Your task to perform on an android device: Open Chrome and go to the settings page Image 0: 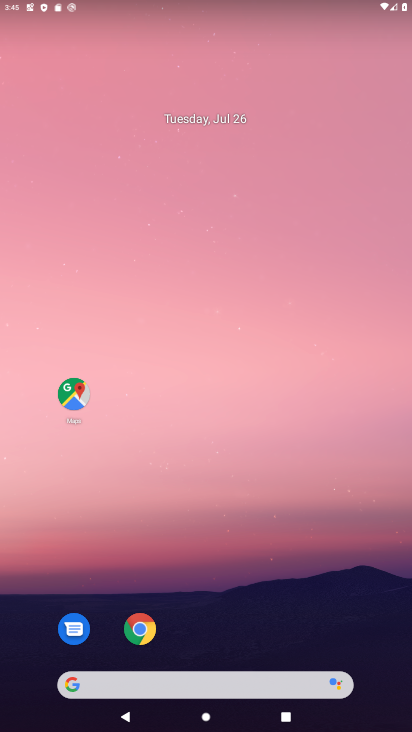
Step 0: click (143, 633)
Your task to perform on an android device: Open Chrome and go to the settings page Image 1: 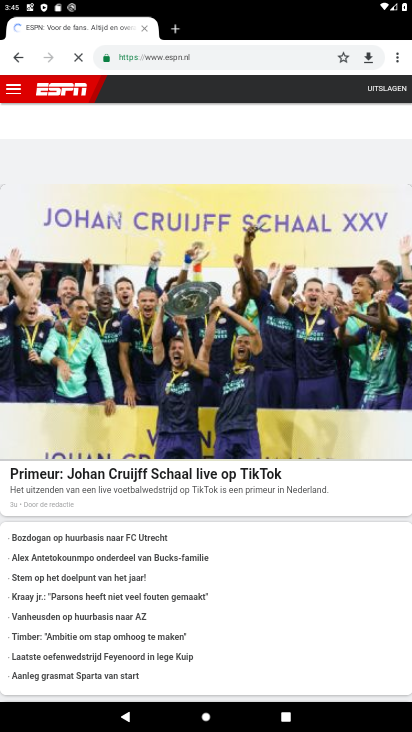
Step 1: click (401, 54)
Your task to perform on an android device: Open Chrome and go to the settings page Image 2: 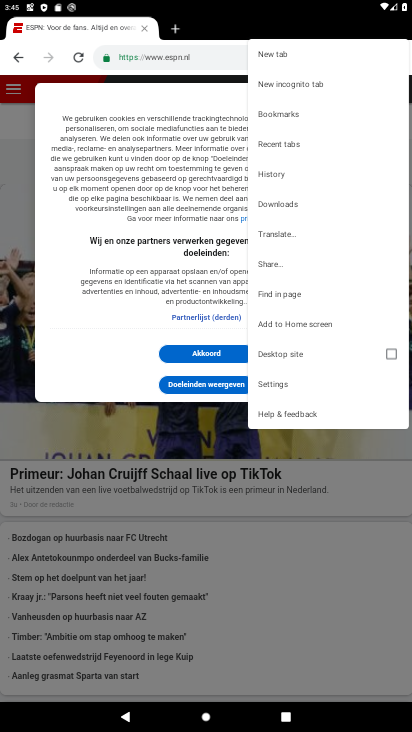
Step 2: click (286, 382)
Your task to perform on an android device: Open Chrome and go to the settings page Image 3: 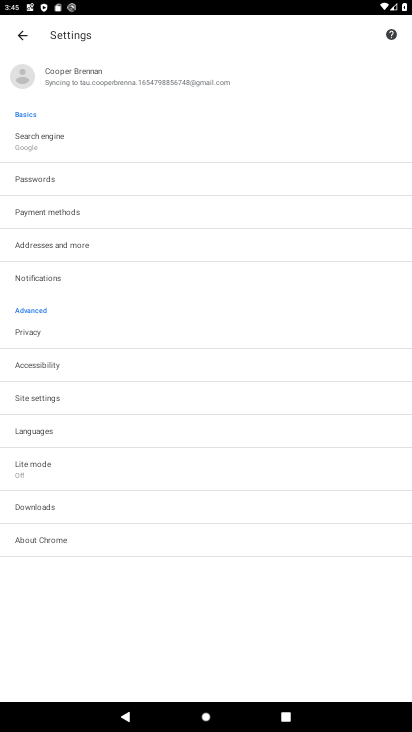
Step 3: task complete